Your task to perform on an android device: Open maps Image 0: 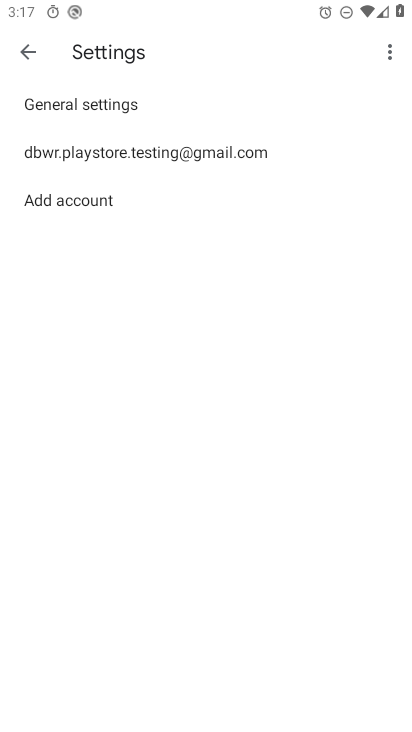
Step 0: press home button
Your task to perform on an android device: Open maps Image 1: 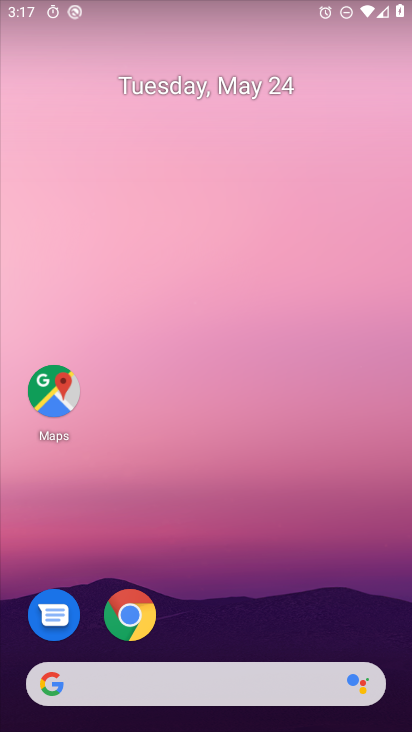
Step 1: click (58, 394)
Your task to perform on an android device: Open maps Image 2: 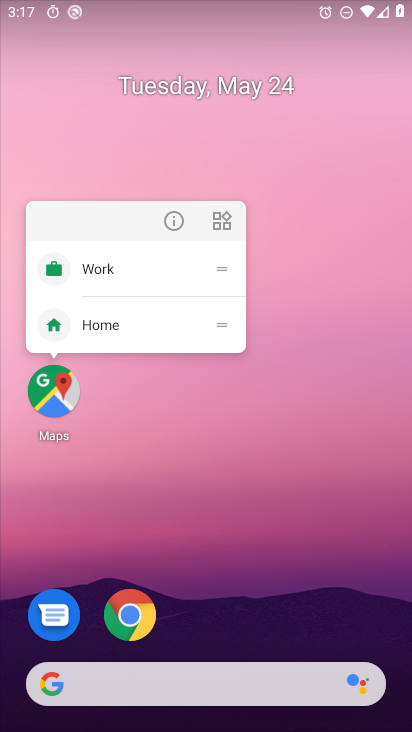
Step 2: click (52, 392)
Your task to perform on an android device: Open maps Image 3: 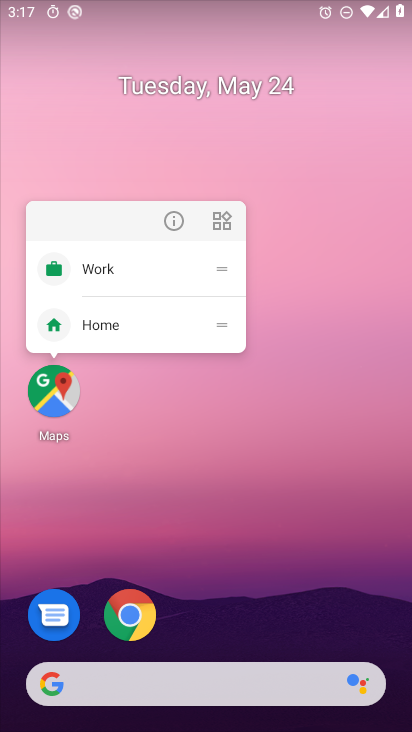
Step 3: click (56, 407)
Your task to perform on an android device: Open maps Image 4: 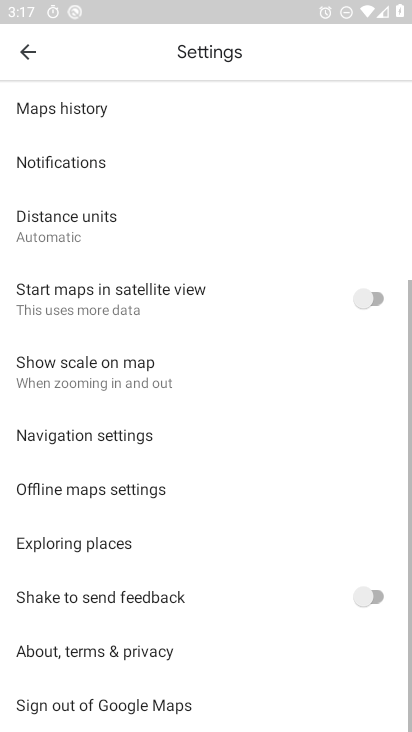
Step 4: click (22, 49)
Your task to perform on an android device: Open maps Image 5: 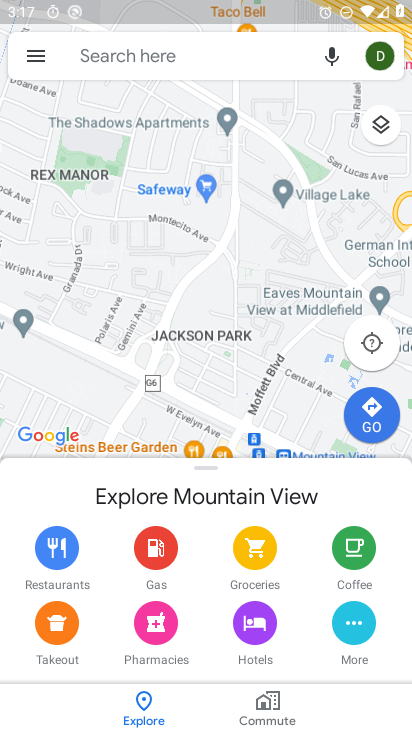
Step 5: task complete